Your task to perform on an android device: Open battery settings Image 0: 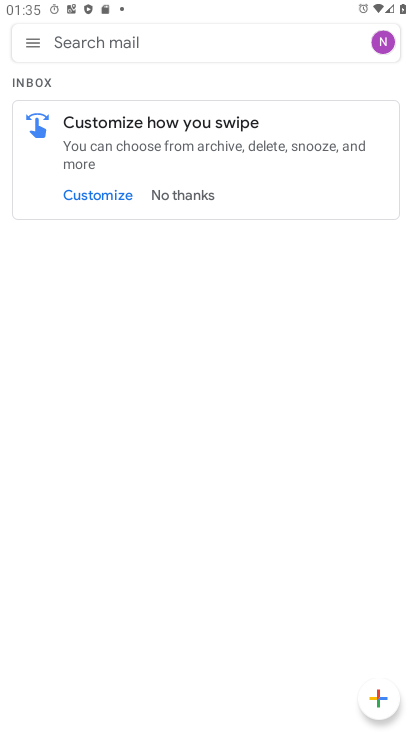
Step 0: press home button
Your task to perform on an android device: Open battery settings Image 1: 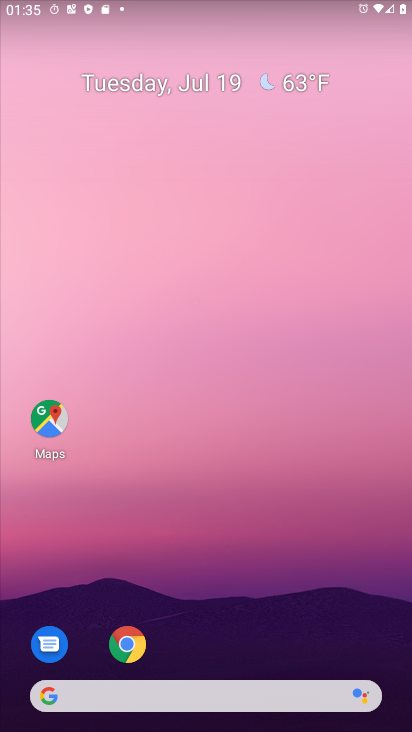
Step 1: click (210, 201)
Your task to perform on an android device: Open battery settings Image 2: 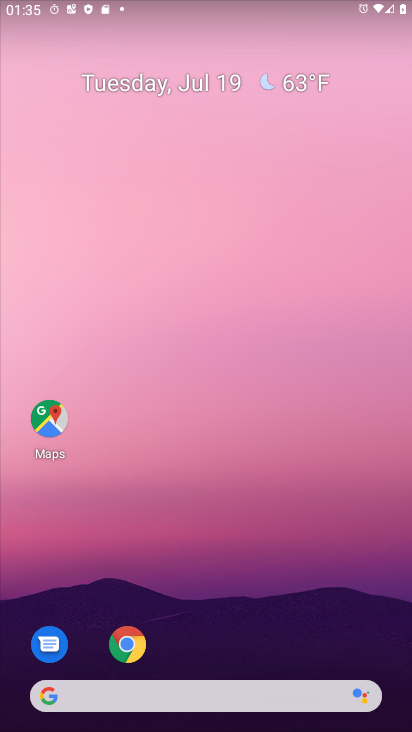
Step 2: drag from (220, 729) to (207, 157)
Your task to perform on an android device: Open battery settings Image 3: 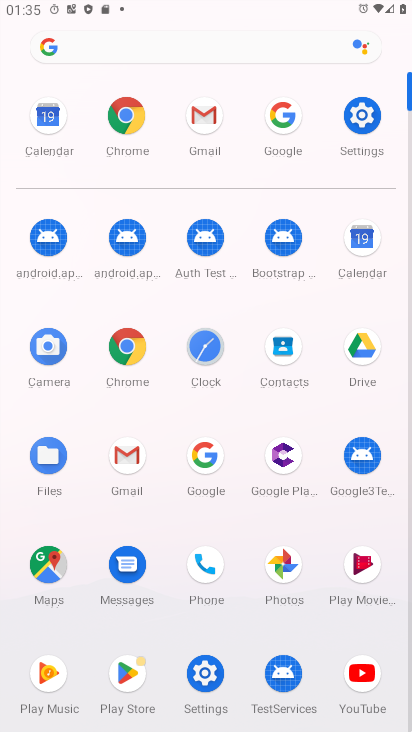
Step 3: click (364, 101)
Your task to perform on an android device: Open battery settings Image 4: 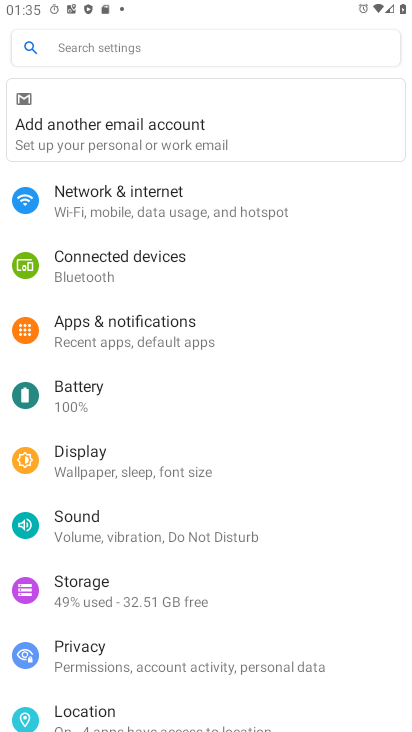
Step 4: click (58, 398)
Your task to perform on an android device: Open battery settings Image 5: 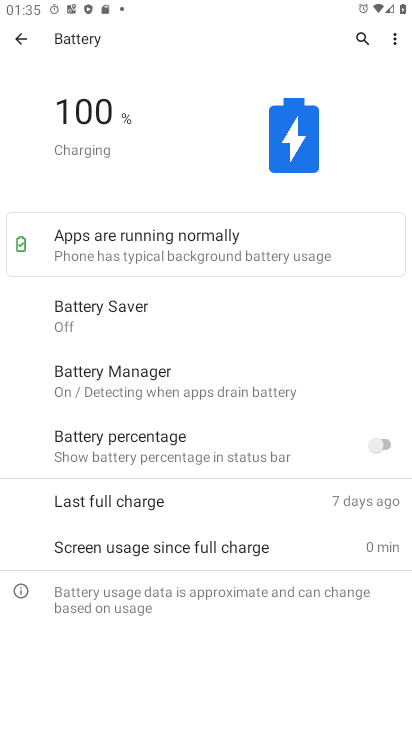
Step 5: task complete